Your task to perform on an android device: turn pop-ups on in chrome Image 0: 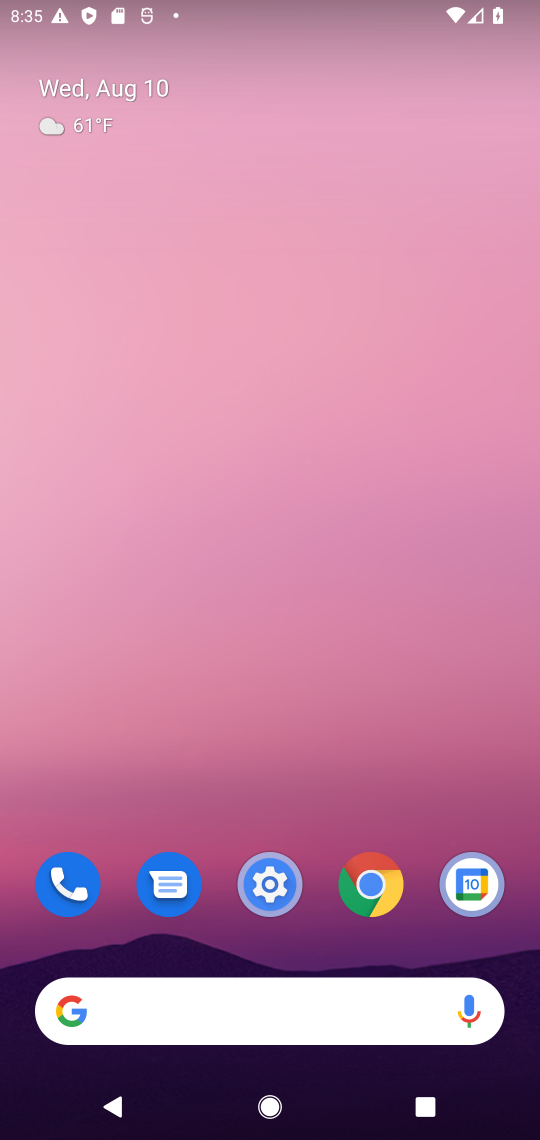
Step 0: click (369, 874)
Your task to perform on an android device: turn pop-ups on in chrome Image 1: 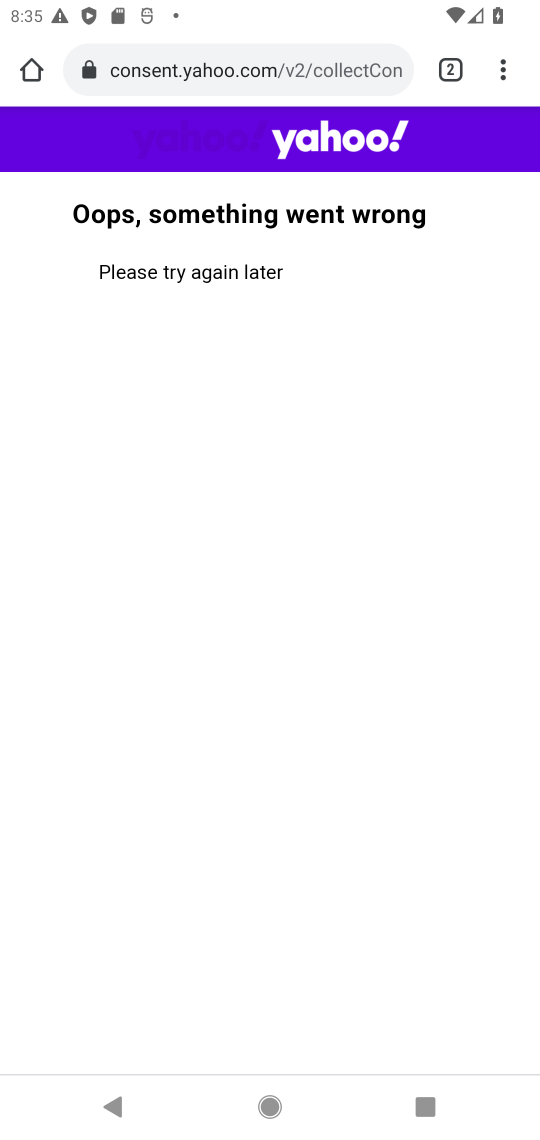
Step 1: click (507, 73)
Your task to perform on an android device: turn pop-ups on in chrome Image 2: 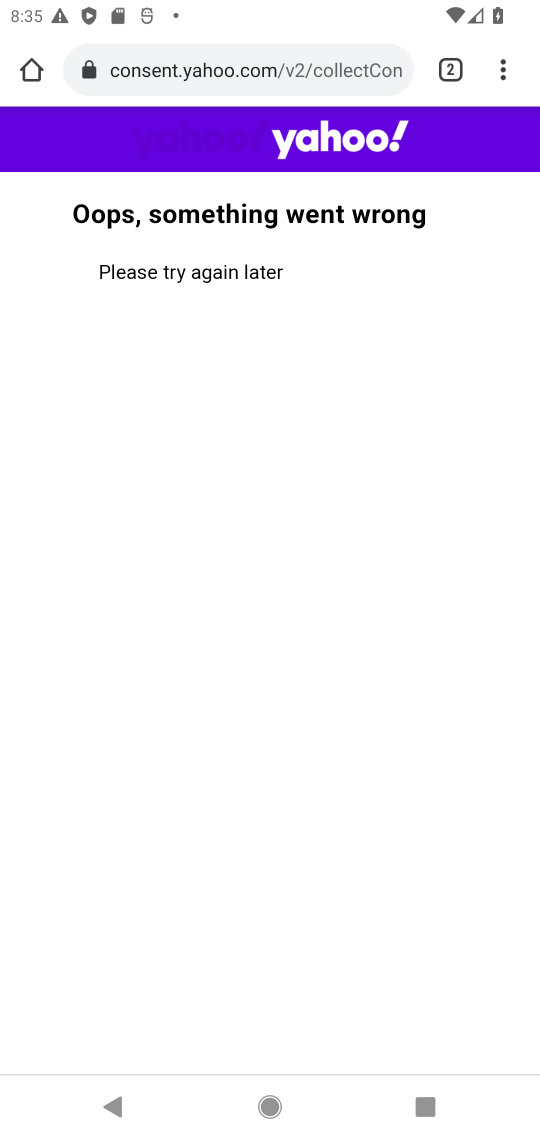
Step 2: click (502, 76)
Your task to perform on an android device: turn pop-ups on in chrome Image 3: 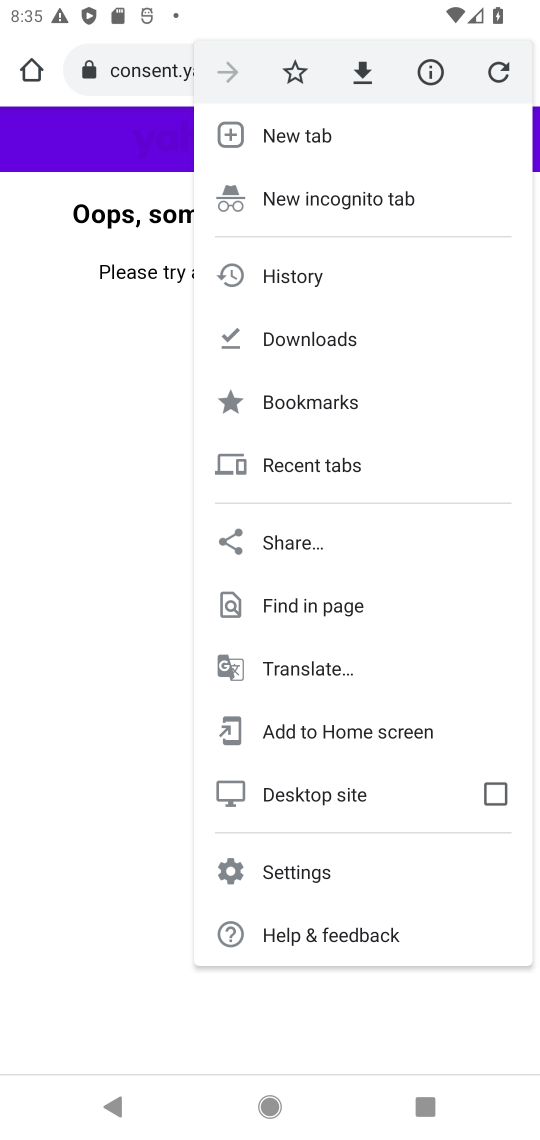
Step 3: click (304, 870)
Your task to perform on an android device: turn pop-ups on in chrome Image 4: 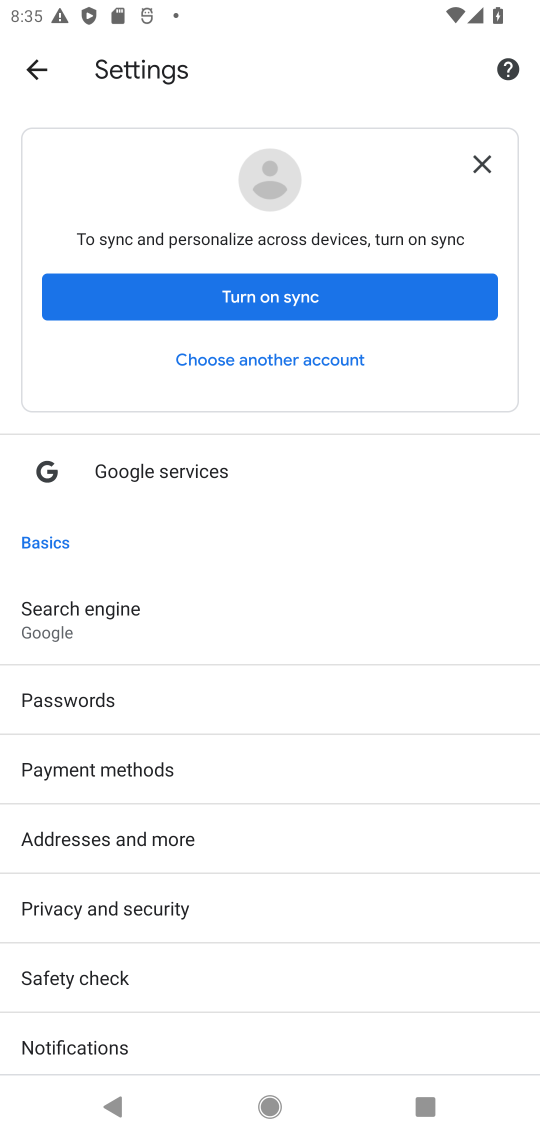
Step 4: drag from (321, 1009) to (215, 526)
Your task to perform on an android device: turn pop-ups on in chrome Image 5: 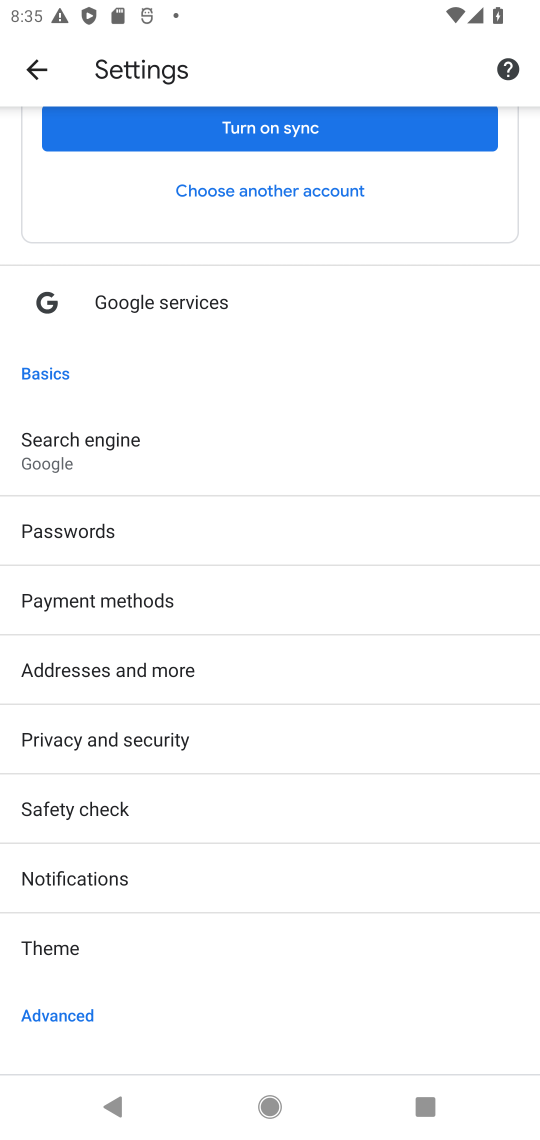
Step 5: drag from (274, 442) to (236, 1107)
Your task to perform on an android device: turn pop-ups on in chrome Image 6: 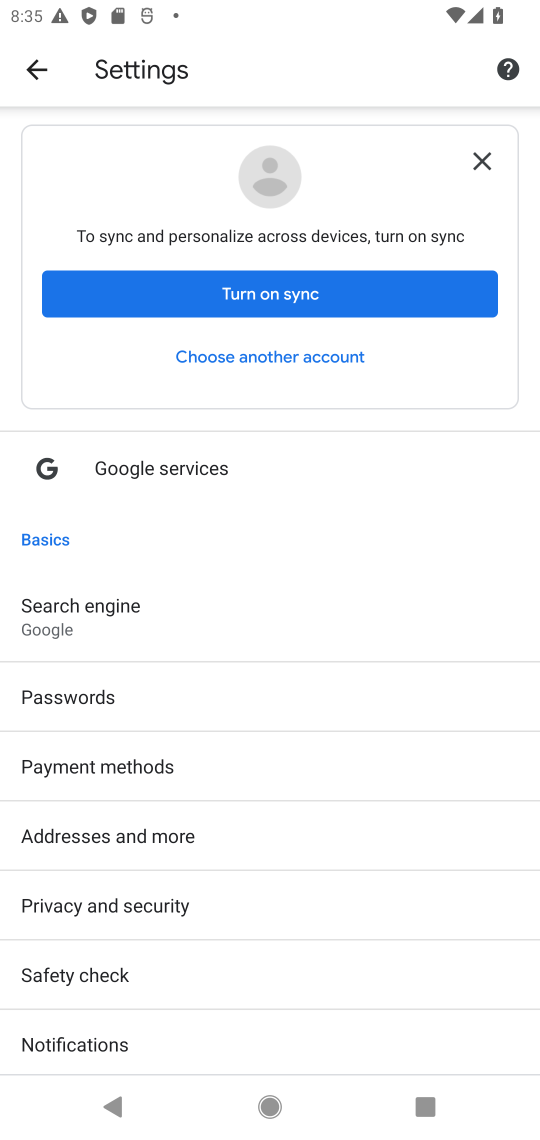
Step 6: drag from (329, 936) to (299, 344)
Your task to perform on an android device: turn pop-ups on in chrome Image 7: 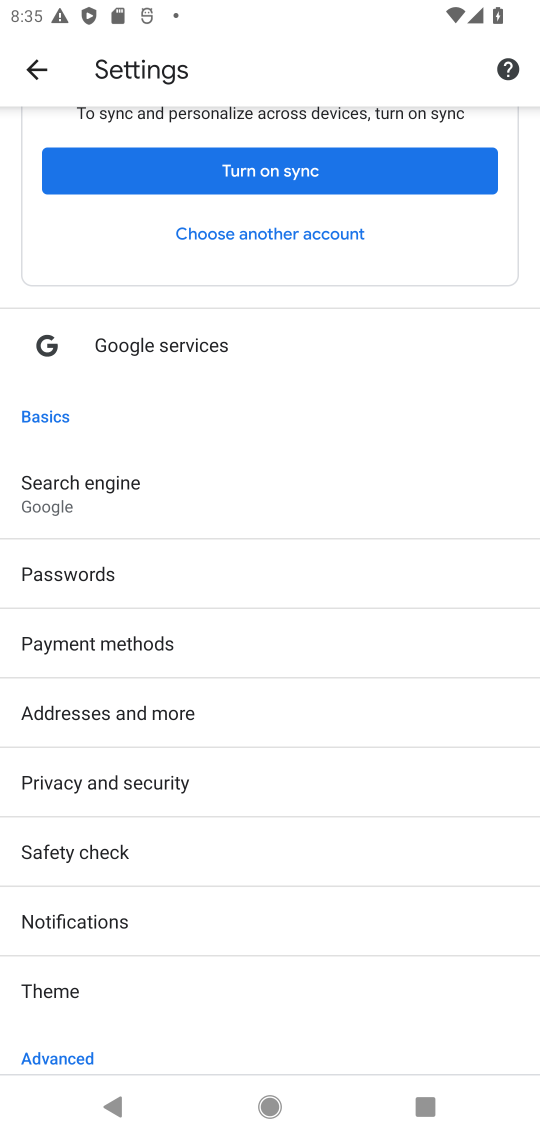
Step 7: drag from (307, 878) to (393, 494)
Your task to perform on an android device: turn pop-ups on in chrome Image 8: 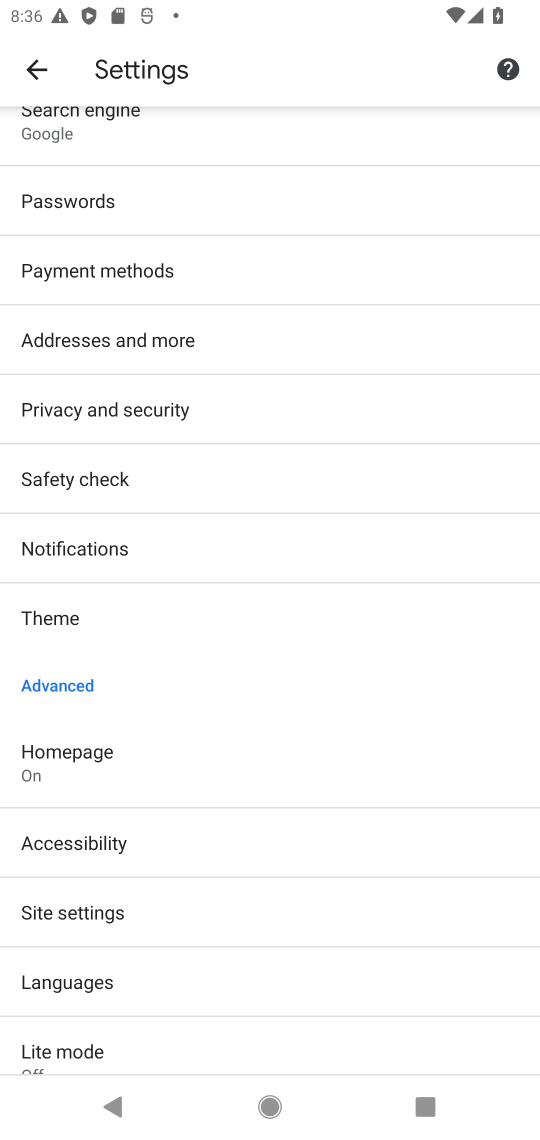
Step 8: click (71, 900)
Your task to perform on an android device: turn pop-ups on in chrome Image 9: 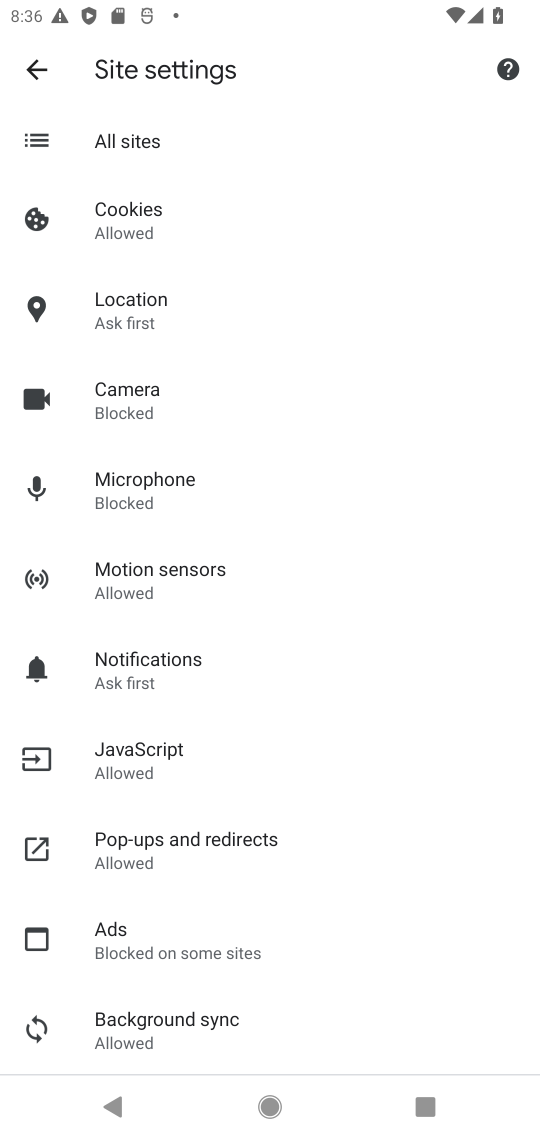
Step 9: click (189, 841)
Your task to perform on an android device: turn pop-ups on in chrome Image 10: 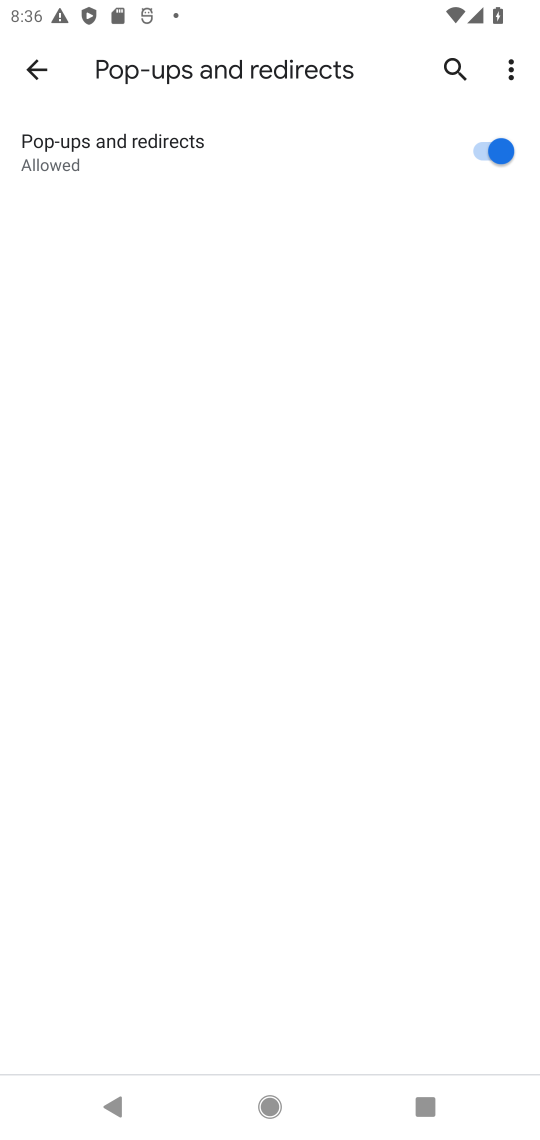
Step 10: task complete